Your task to perform on an android device: Go to Maps Image 0: 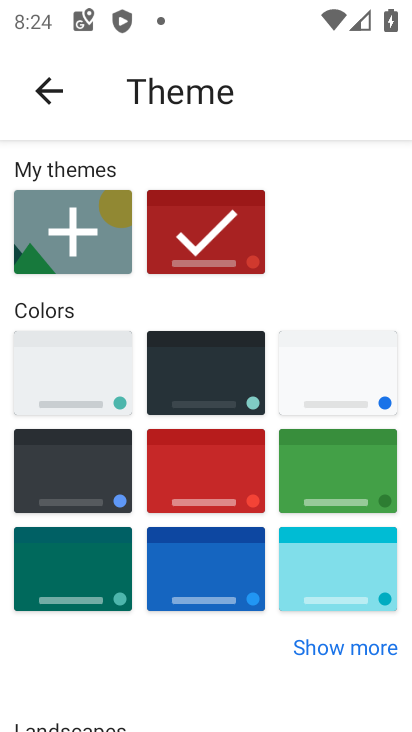
Step 0: press home button
Your task to perform on an android device: Go to Maps Image 1: 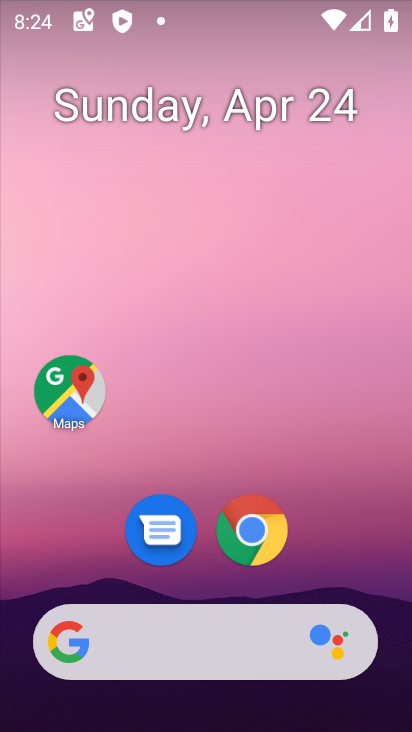
Step 1: click (77, 405)
Your task to perform on an android device: Go to Maps Image 2: 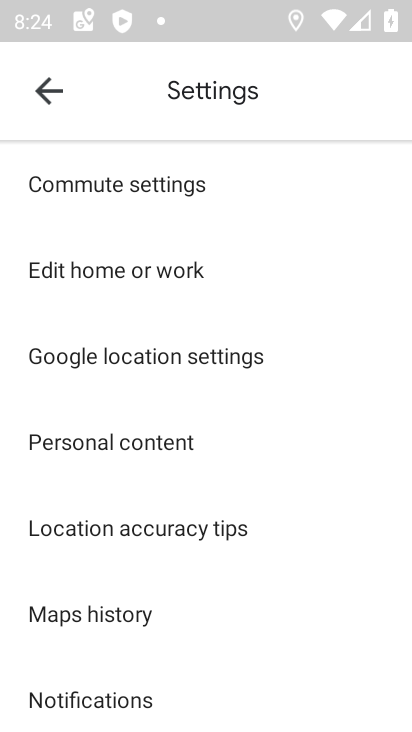
Step 2: click (67, 92)
Your task to perform on an android device: Go to Maps Image 3: 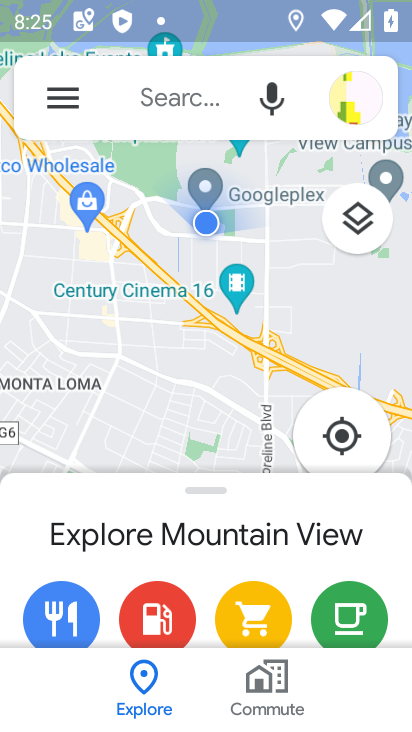
Step 3: task complete